Your task to perform on an android device: Set an alarm for 10am Image 0: 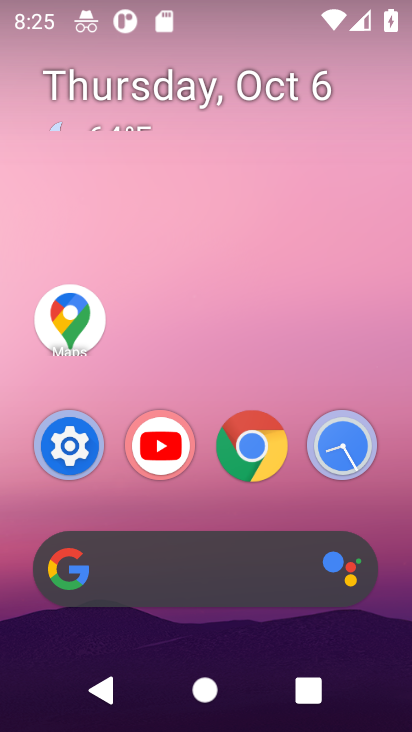
Step 0: click (371, 446)
Your task to perform on an android device: Set an alarm for 10am Image 1: 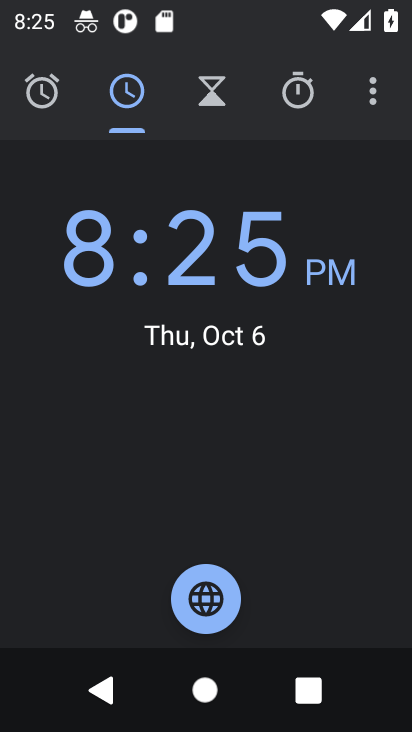
Step 1: click (73, 115)
Your task to perform on an android device: Set an alarm for 10am Image 2: 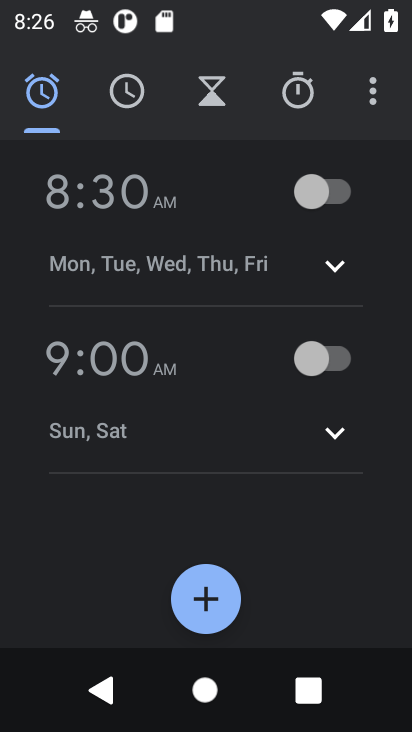
Step 2: click (201, 572)
Your task to perform on an android device: Set an alarm for 10am Image 3: 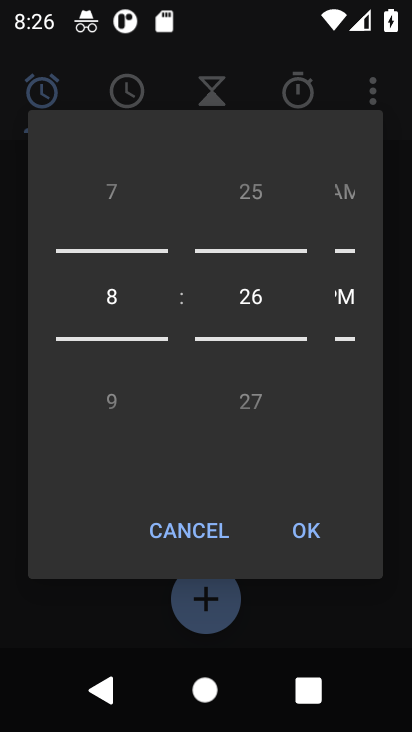
Step 3: click (122, 383)
Your task to perform on an android device: Set an alarm for 10am Image 4: 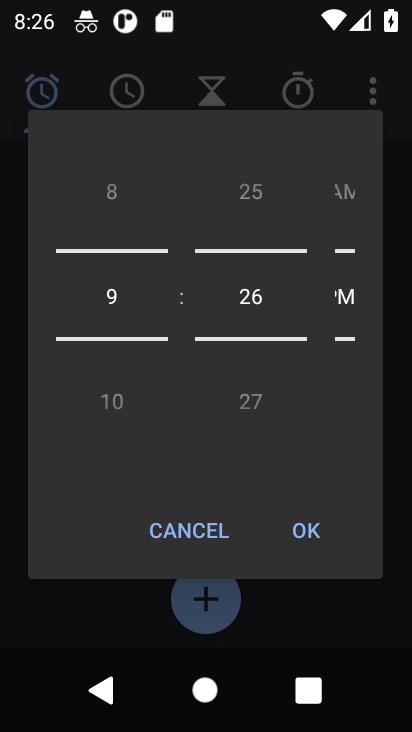
Step 4: click (116, 397)
Your task to perform on an android device: Set an alarm for 10am Image 5: 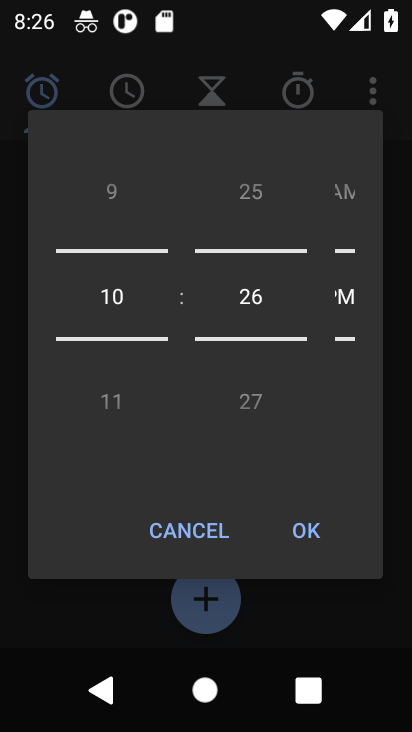
Step 5: click (360, 209)
Your task to perform on an android device: Set an alarm for 10am Image 6: 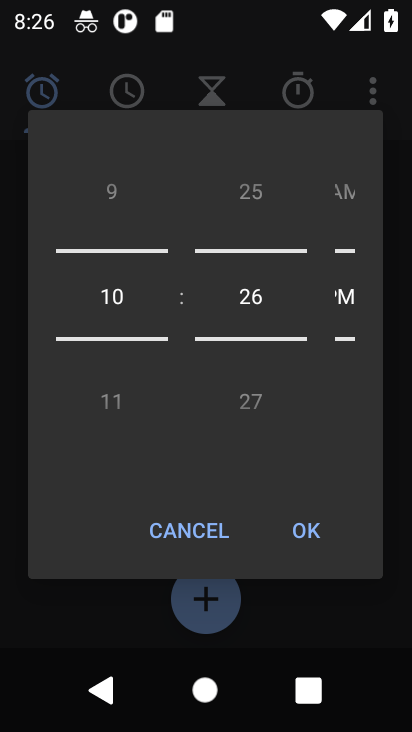
Step 6: drag from (248, 388) to (233, 508)
Your task to perform on an android device: Set an alarm for 10am Image 7: 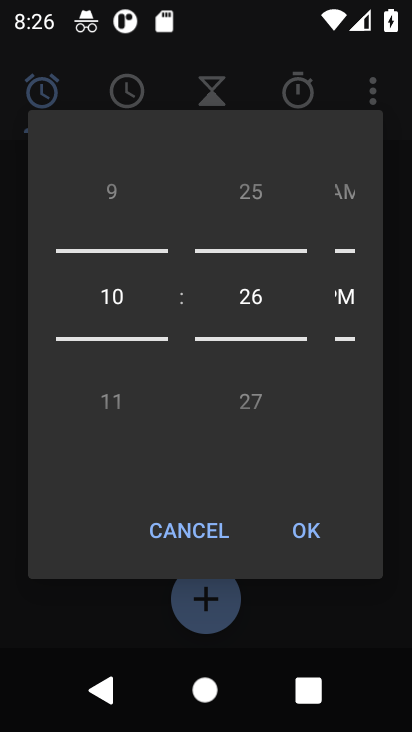
Step 7: drag from (256, 212) to (253, 503)
Your task to perform on an android device: Set an alarm for 10am Image 8: 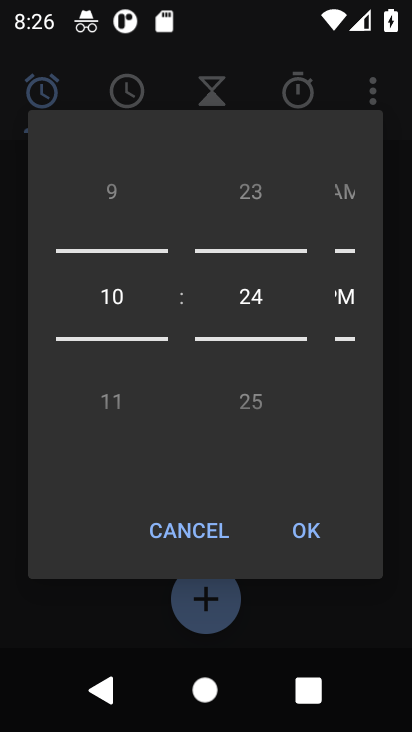
Step 8: drag from (260, 170) to (253, 383)
Your task to perform on an android device: Set an alarm for 10am Image 9: 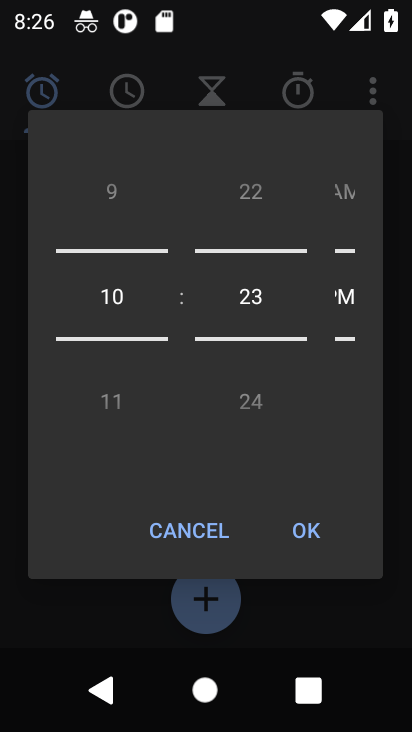
Step 9: drag from (250, 229) to (249, 397)
Your task to perform on an android device: Set an alarm for 10am Image 10: 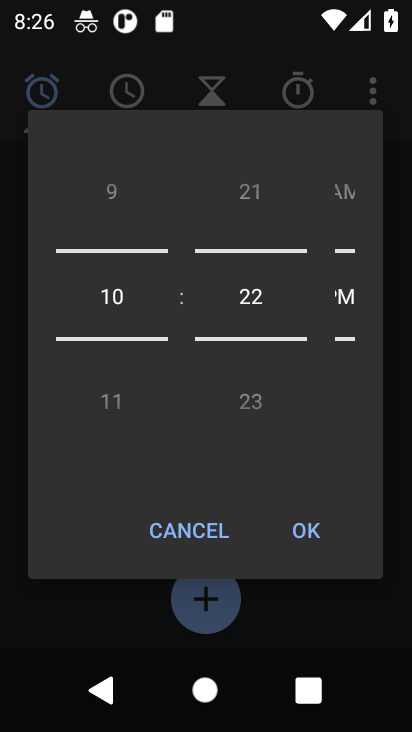
Step 10: click (249, 214)
Your task to perform on an android device: Set an alarm for 10am Image 11: 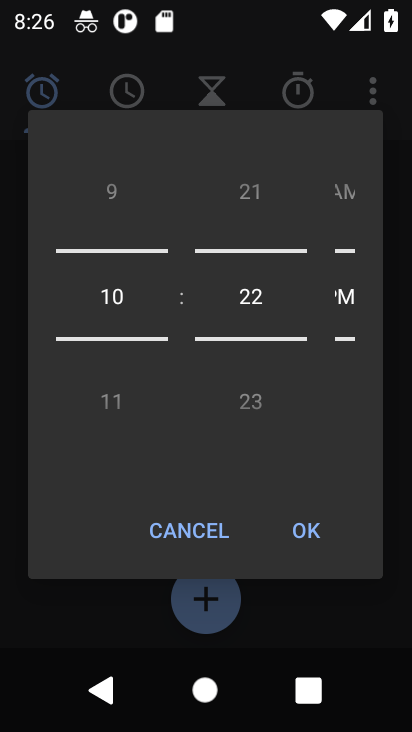
Step 11: click (249, 214)
Your task to perform on an android device: Set an alarm for 10am Image 12: 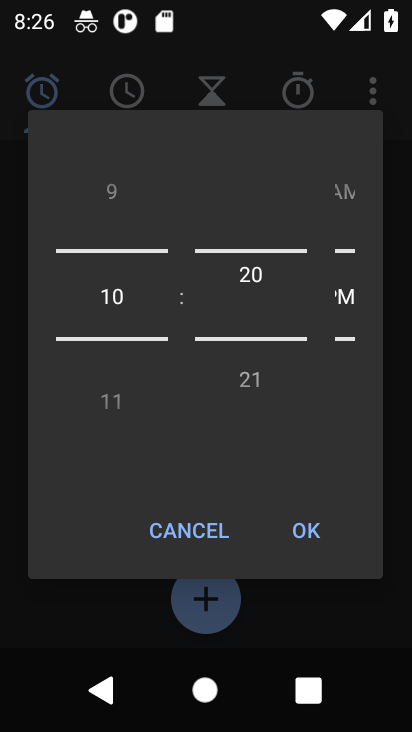
Step 12: click (249, 214)
Your task to perform on an android device: Set an alarm for 10am Image 13: 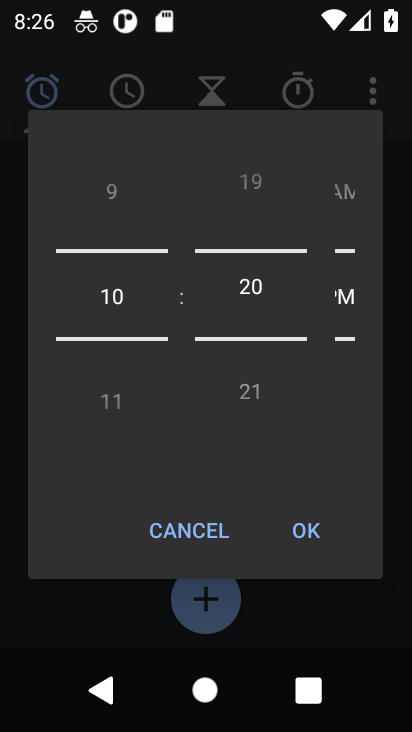
Step 13: click (249, 214)
Your task to perform on an android device: Set an alarm for 10am Image 14: 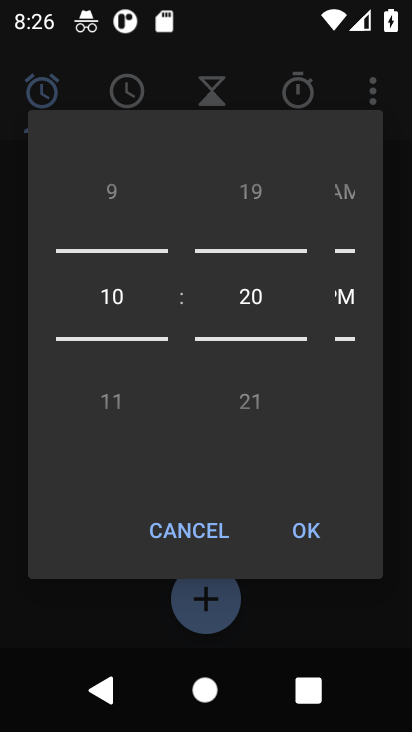
Step 14: click (245, 178)
Your task to perform on an android device: Set an alarm for 10am Image 15: 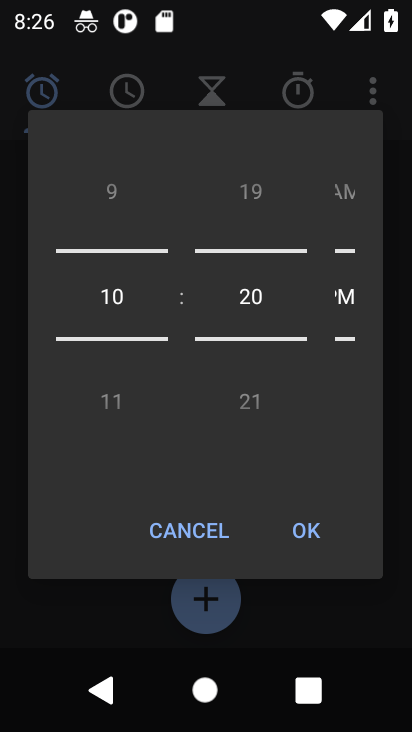
Step 15: click (250, 184)
Your task to perform on an android device: Set an alarm for 10am Image 16: 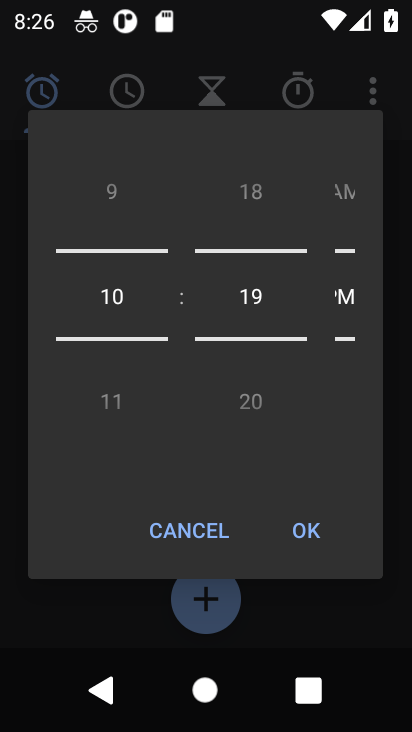
Step 16: click (250, 184)
Your task to perform on an android device: Set an alarm for 10am Image 17: 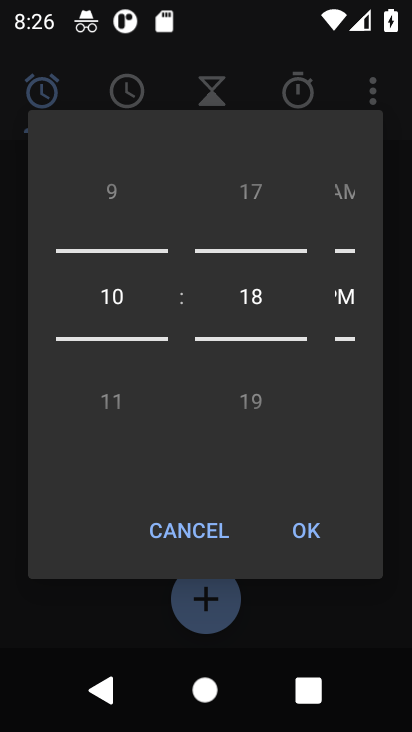
Step 17: click (250, 184)
Your task to perform on an android device: Set an alarm for 10am Image 18: 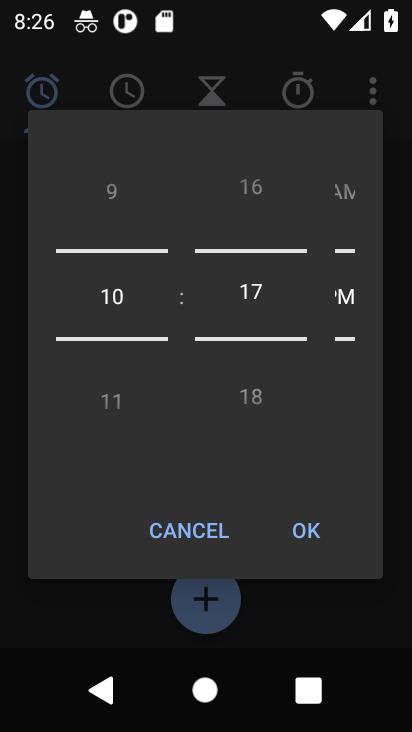
Step 18: click (250, 184)
Your task to perform on an android device: Set an alarm for 10am Image 19: 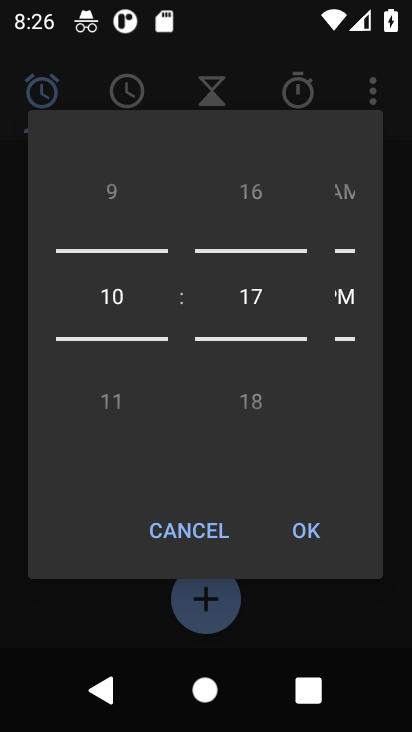
Step 19: click (250, 184)
Your task to perform on an android device: Set an alarm for 10am Image 20: 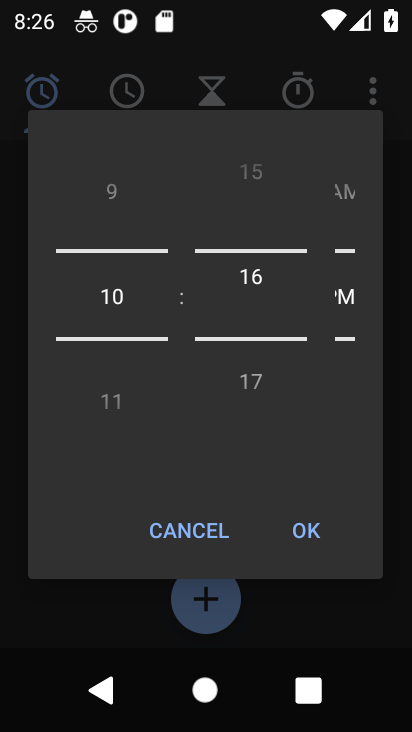
Step 20: click (250, 184)
Your task to perform on an android device: Set an alarm for 10am Image 21: 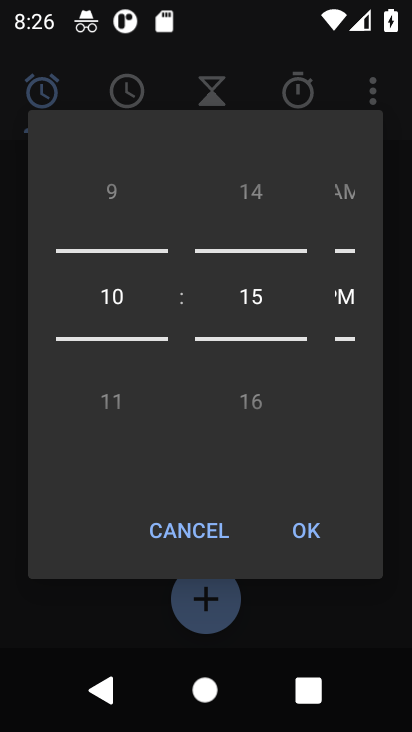
Step 21: click (250, 184)
Your task to perform on an android device: Set an alarm for 10am Image 22: 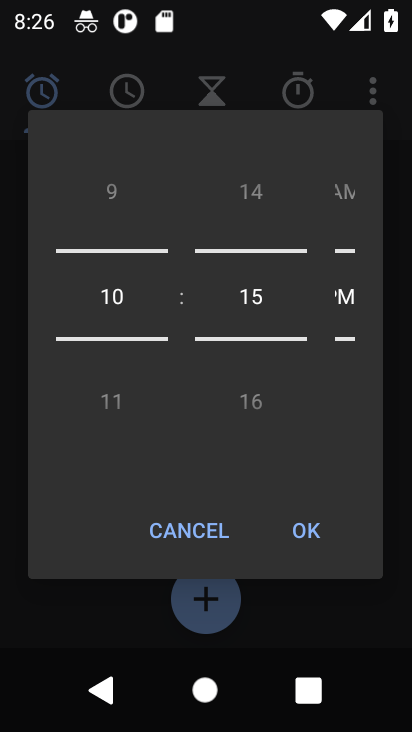
Step 22: click (250, 184)
Your task to perform on an android device: Set an alarm for 10am Image 23: 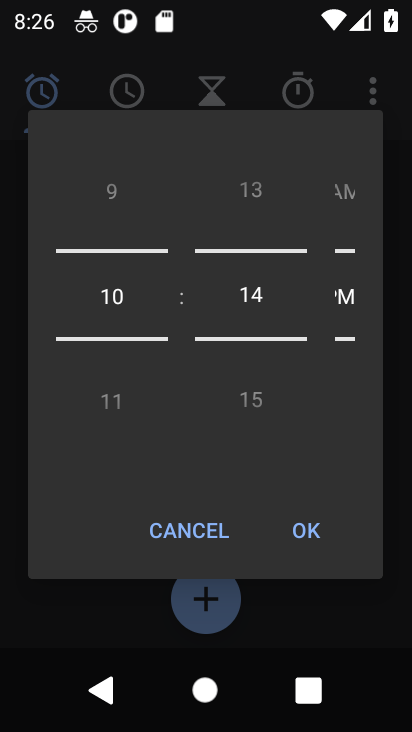
Step 23: click (250, 184)
Your task to perform on an android device: Set an alarm for 10am Image 24: 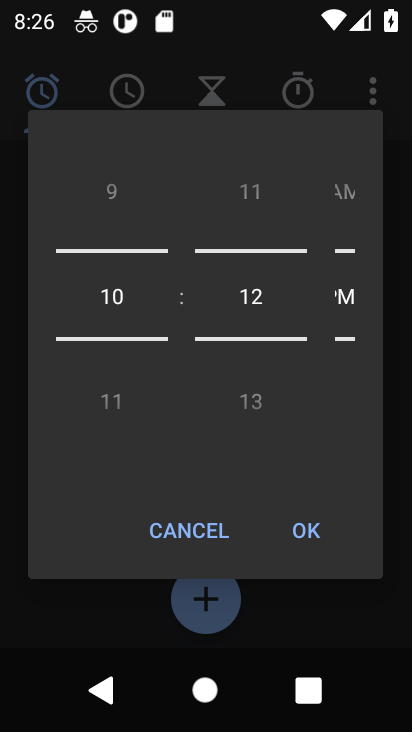
Step 24: click (250, 184)
Your task to perform on an android device: Set an alarm for 10am Image 25: 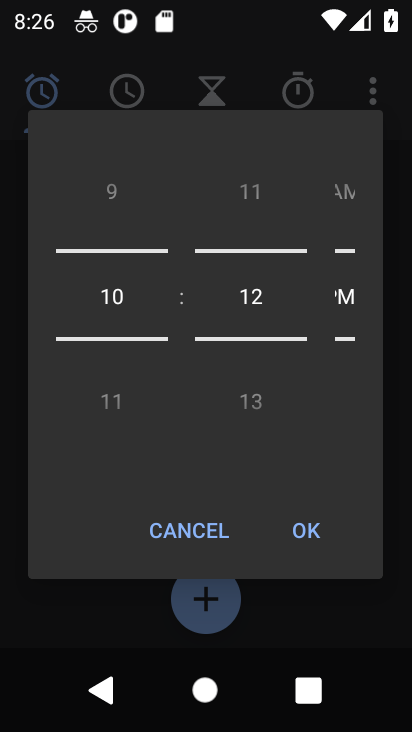
Step 25: click (250, 184)
Your task to perform on an android device: Set an alarm for 10am Image 26: 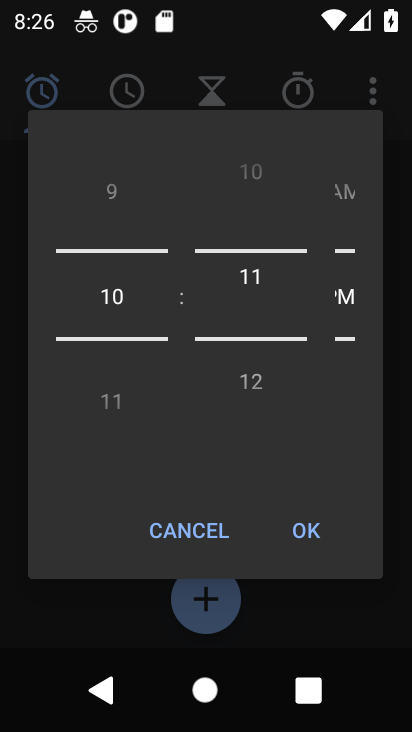
Step 26: click (250, 184)
Your task to perform on an android device: Set an alarm for 10am Image 27: 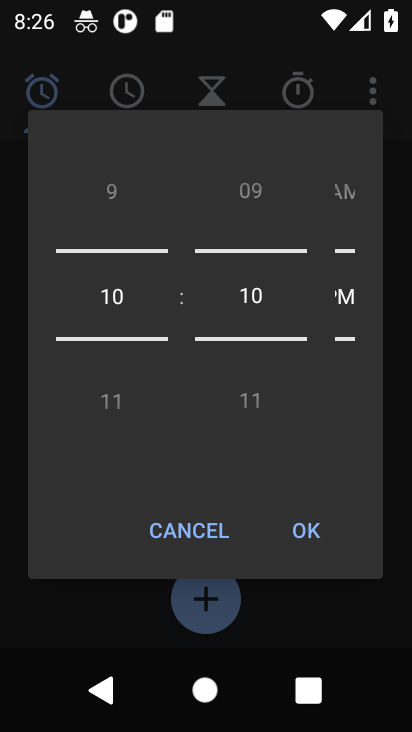
Step 27: click (250, 184)
Your task to perform on an android device: Set an alarm for 10am Image 28: 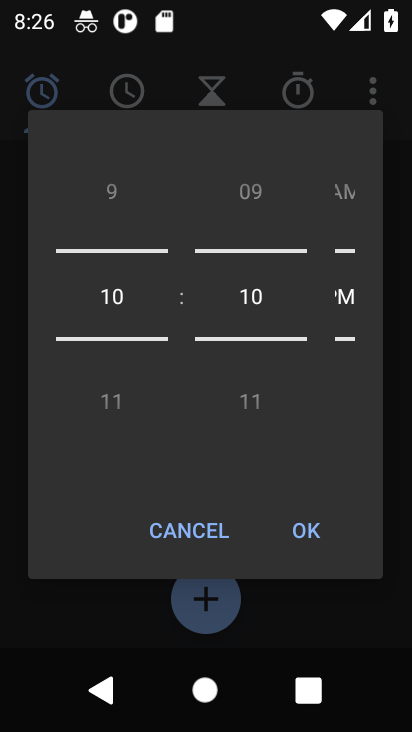
Step 28: click (250, 184)
Your task to perform on an android device: Set an alarm for 10am Image 29: 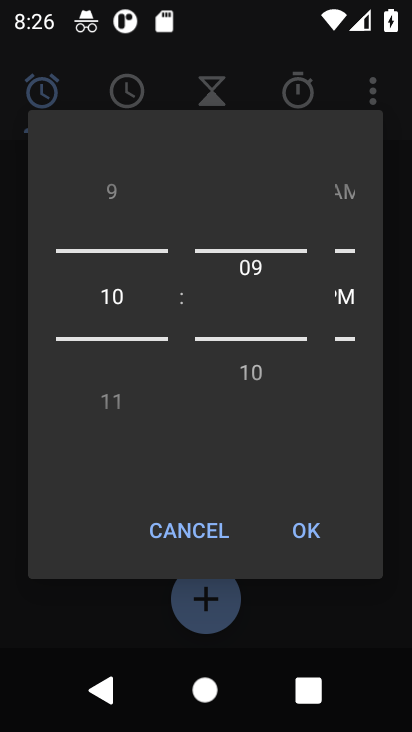
Step 29: click (250, 184)
Your task to perform on an android device: Set an alarm for 10am Image 30: 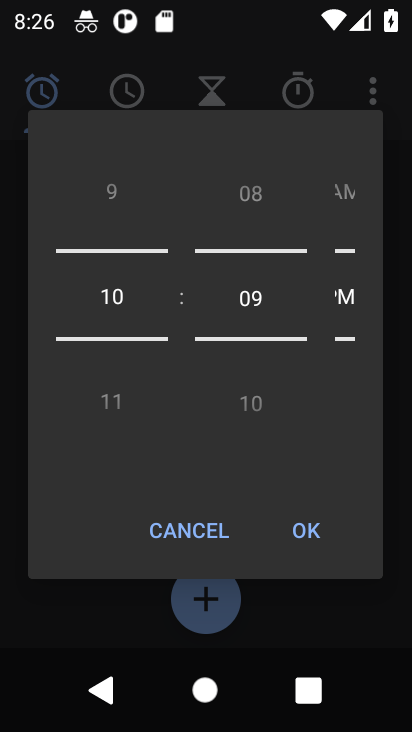
Step 30: click (250, 184)
Your task to perform on an android device: Set an alarm for 10am Image 31: 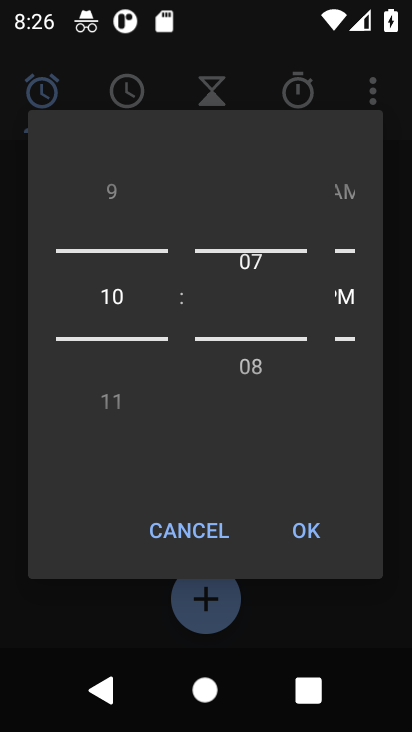
Step 31: click (250, 184)
Your task to perform on an android device: Set an alarm for 10am Image 32: 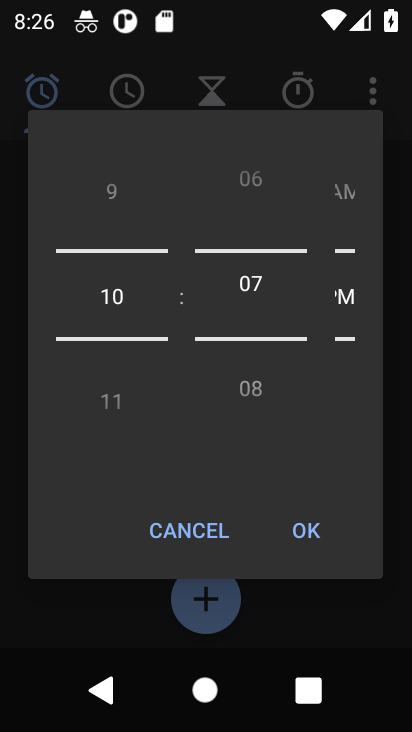
Step 32: click (250, 184)
Your task to perform on an android device: Set an alarm for 10am Image 33: 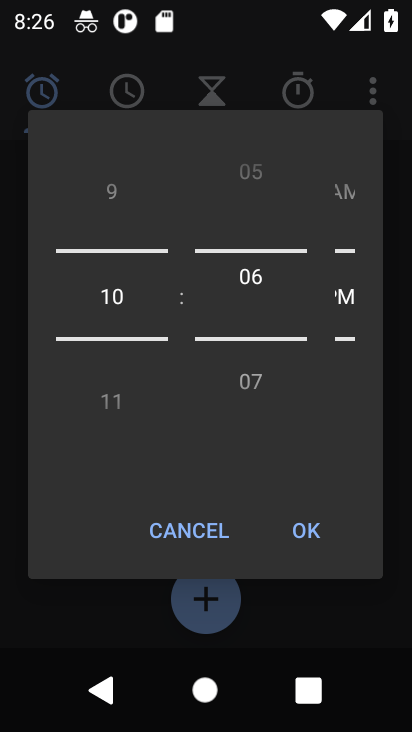
Step 33: click (250, 184)
Your task to perform on an android device: Set an alarm for 10am Image 34: 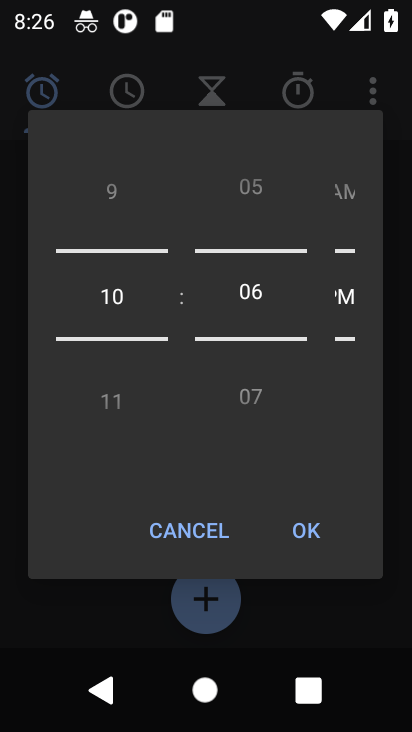
Step 34: click (250, 184)
Your task to perform on an android device: Set an alarm for 10am Image 35: 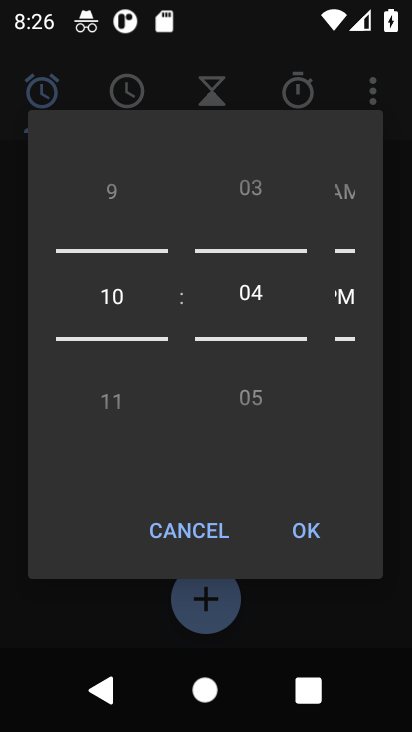
Step 35: click (250, 184)
Your task to perform on an android device: Set an alarm for 10am Image 36: 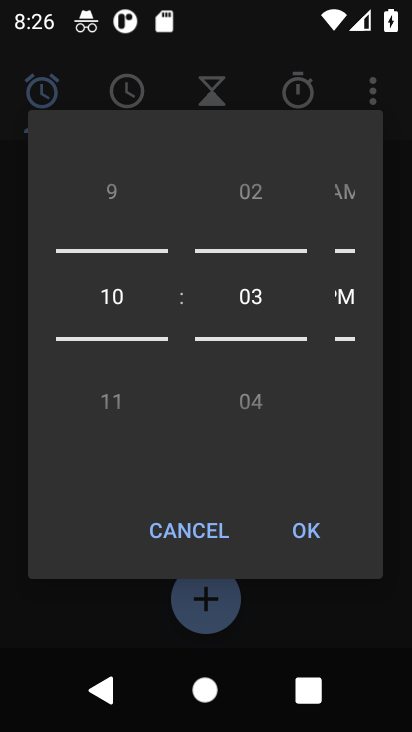
Step 36: click (250, 184)
Your task to perform on an android device: Set an alarm for 10am Image 37: 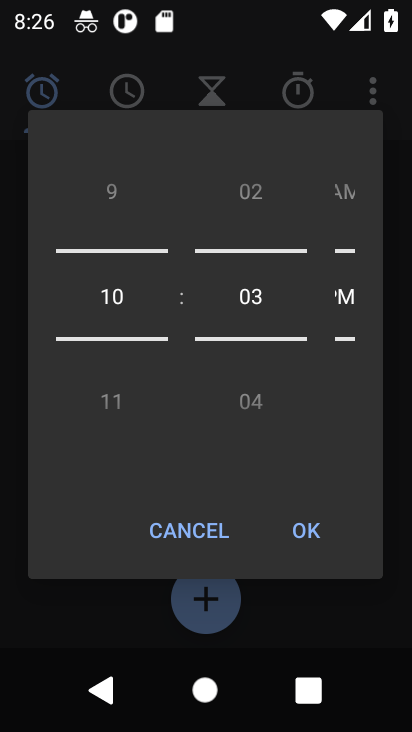
Step 37: click (250, 184)
Your task to perform on an android device: Set an alarm for 10am Image 38: 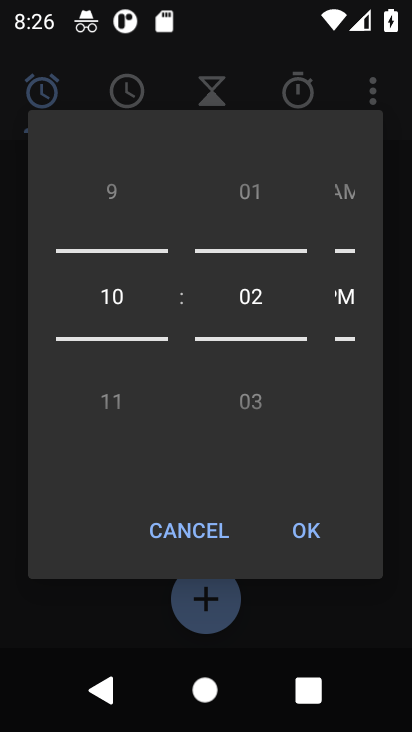
Step 38: click (250, 184)
Your task to perform on an android device: Set an alarm for 10am Image 39: 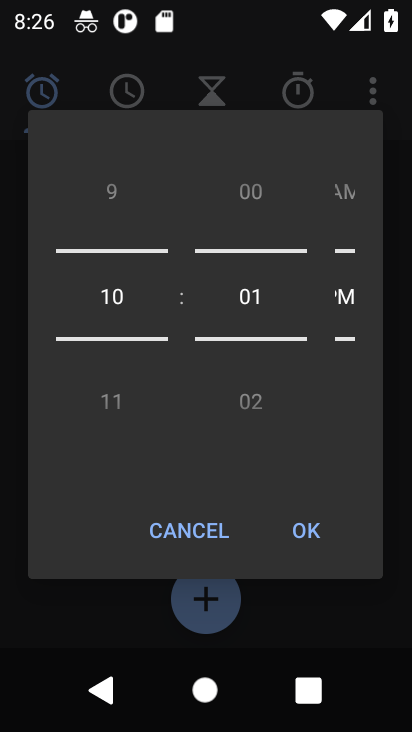
Step 39: click (250, 184)
Your task to perform on an android device: Set an alarm for 10am Image 40: 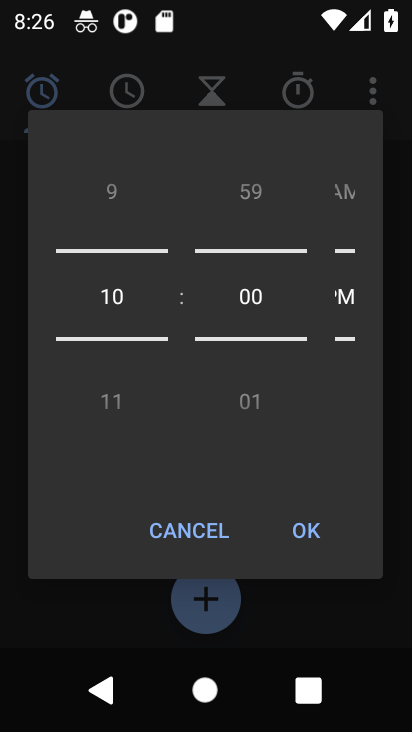
Step 40: click (279, 542)
Your task to perform on an android device: Set an alarm for 10am Image 41: 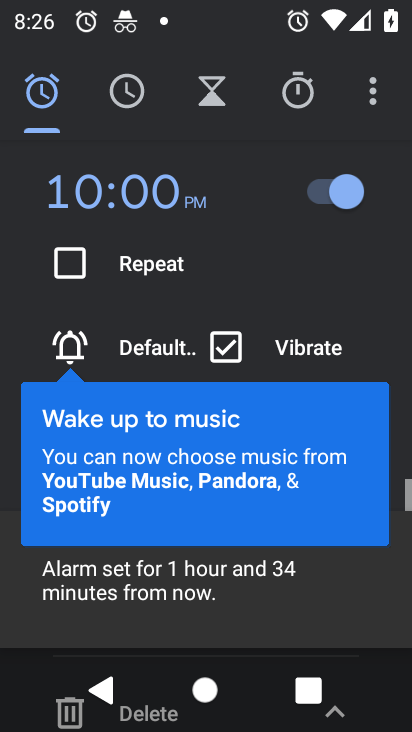
Step 41: task complete